Your task to perform on an android device: Google the capital of Mexico Image 0: 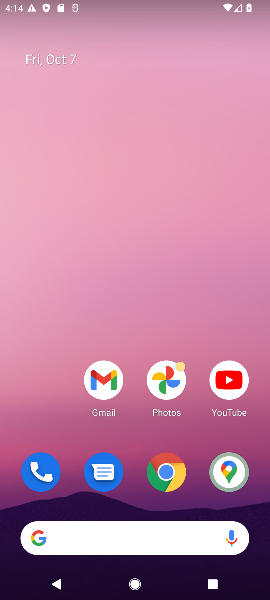
Step 0: click (171, 480)
Your task to perform on an android device: Google the capital of Mexico Image 1: 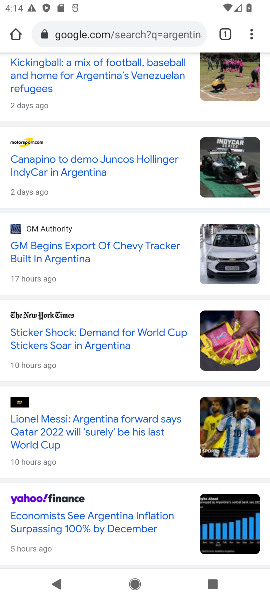
Step 1: click (113, 35)
Your task to perform on an android device: Google the capital of Mexico Image 2: 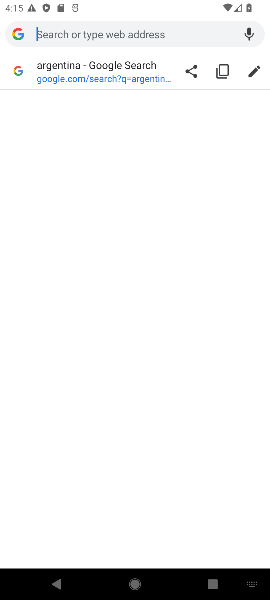
Step 2: type "capital of mexico"
Your task to perform on an android device: Google the capital of Mexico Image 3: 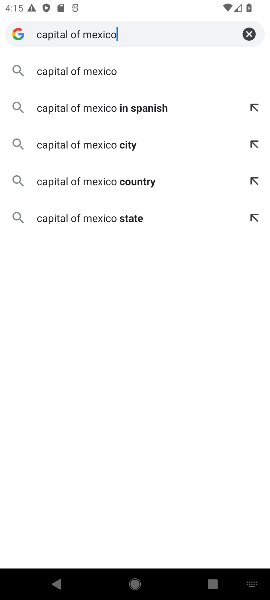
Step 3: click (87, 71)
Your task to perform on an android device: Google the capital of Mexico Image 4: 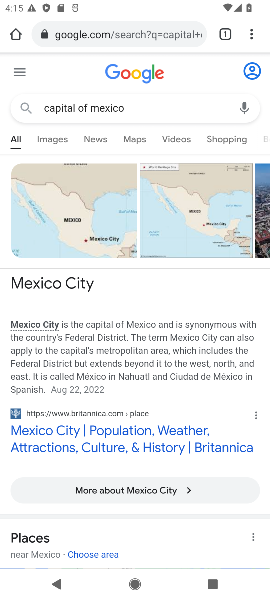
Step 4: task complete